Your task to perform on an android device: turn off smart reply in the gmail app Image 0: 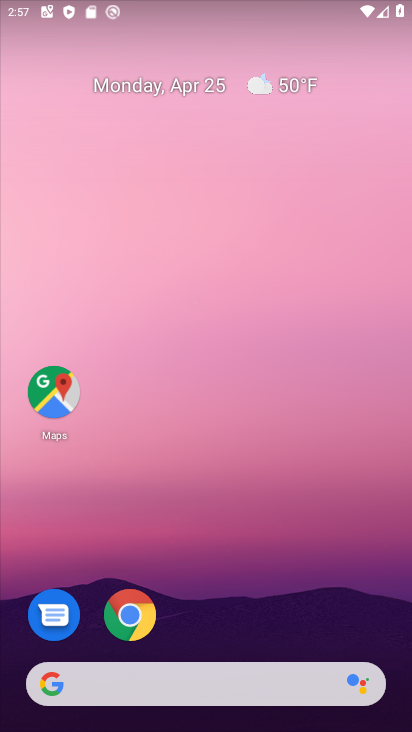
Step 0: drag from (215, 724) to (221, 168)
Your task to perform on an android device: turn off smart reply in the gmail app Image 1: 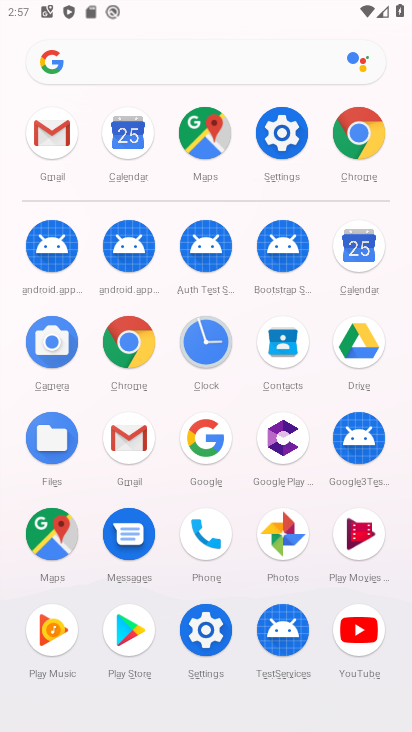
Step 1: click (131, 439)
Your task to perform on an android device: turn off smart reply in the gmail app Image 2: 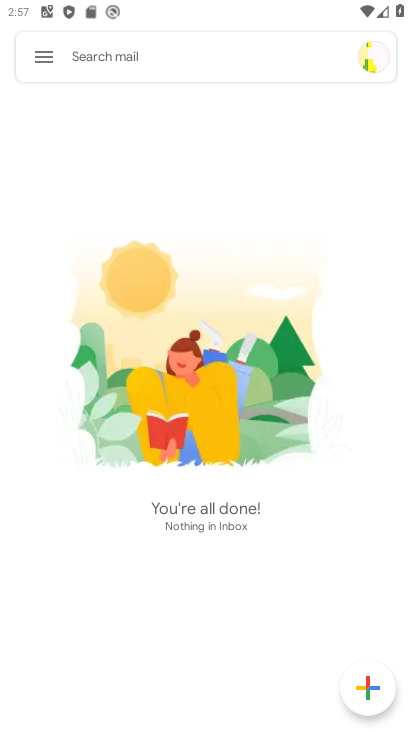
Step 2: click (43, 56)
Your task to perform on an android device: turn off smart reply in the gmail app Image 3: 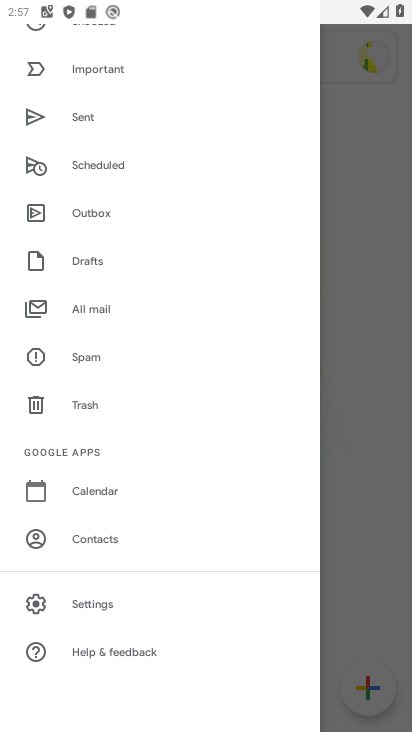
Step 3: click (96, 597)
Your task to perform on an android device: turn off smart reply in the gmail app Image 4: 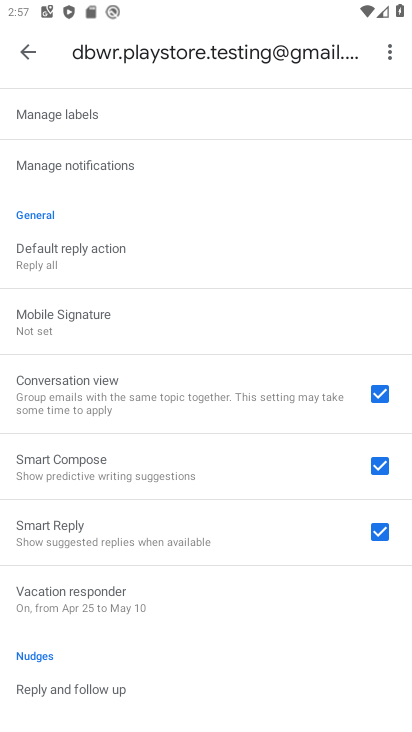
Step 4: click (383, 529)
Your task to perform on an android device: turn off smart reply in the gmail app Image 5: 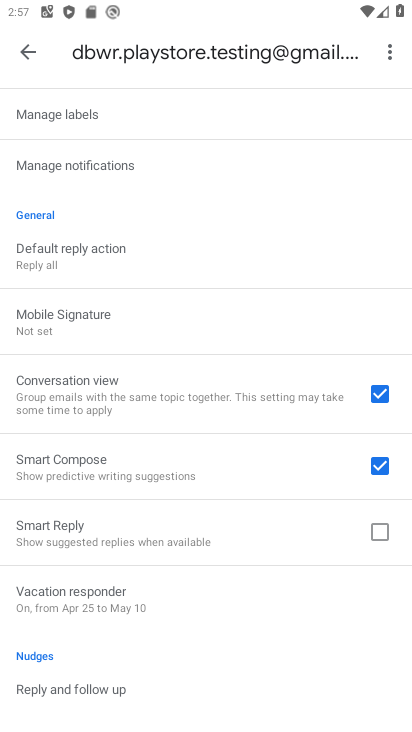
Step 5: task complete